Your task to perform on an android device: Open location settings Image 0: 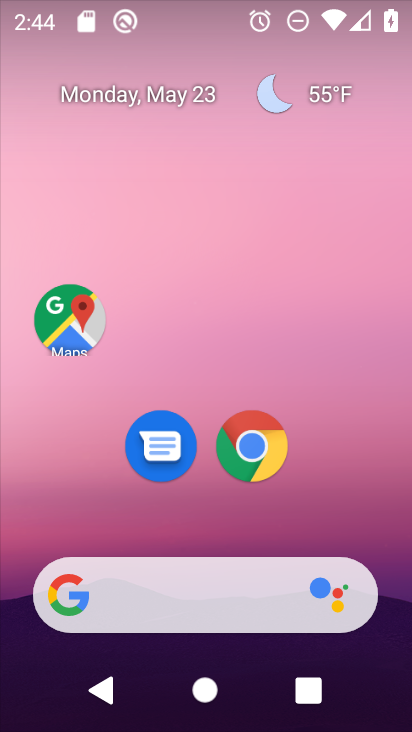
Step 0: drag from (198, 536) to (239, 158)
Your task to perform on an android device: Open location settings Image 1: 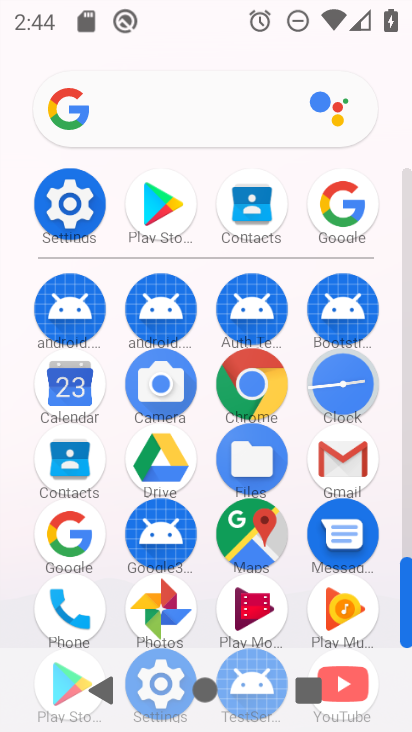
Step 1: click (86, 213)
Your task to perform on an android device: Open location settings Image 2: 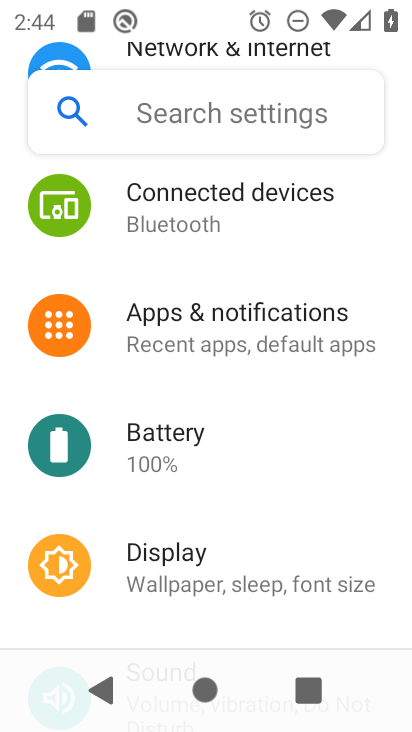
Step 2: drag from (230, 551) to (300, 176)
Your task to perform on an android device: Open location settings Image 3: 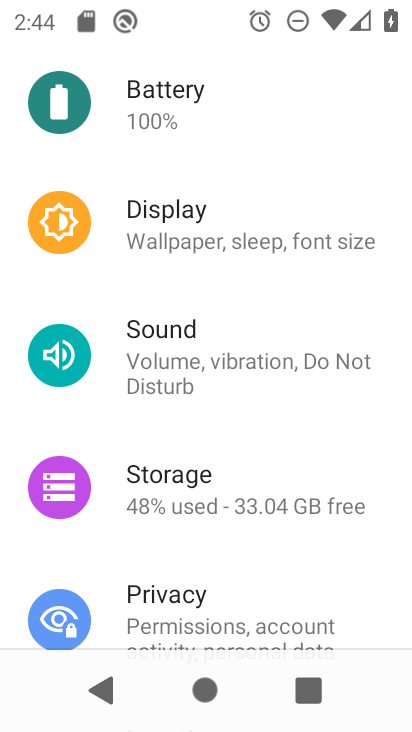
Step 3: drag from (220, 553) to (213, 189)
Your task to perform on an android device: Open location settings Image 4: 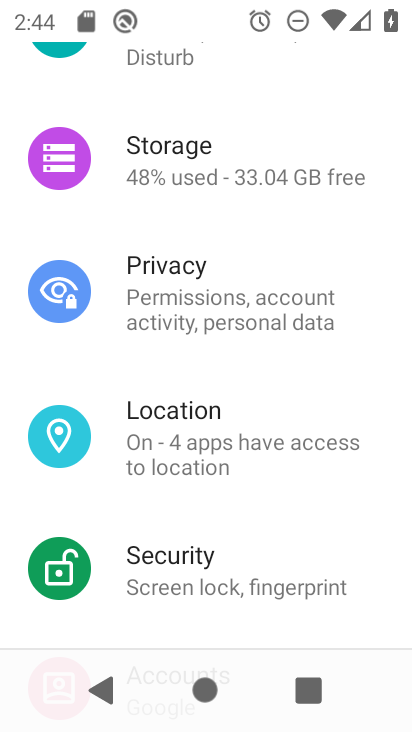
Step 4: click (211, 439)
Your task to perform on an android device: Open location settings Image 5: 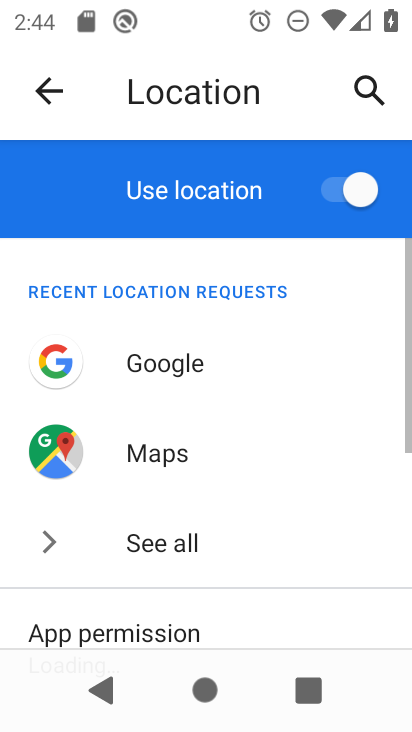
Step 5: task complete